Your task to perform on an android device: turn on translation in the chrome app Image 0: 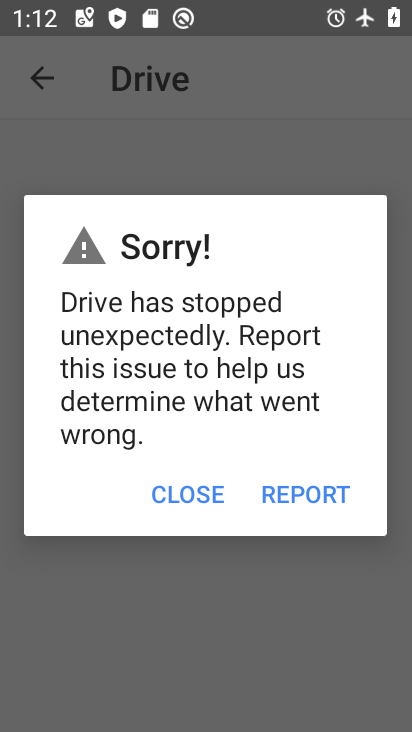
Step 0: drag from (148, 688) to (142, 167)
Your task to perform on an android device: turn on translation in the chrome app Image 1: 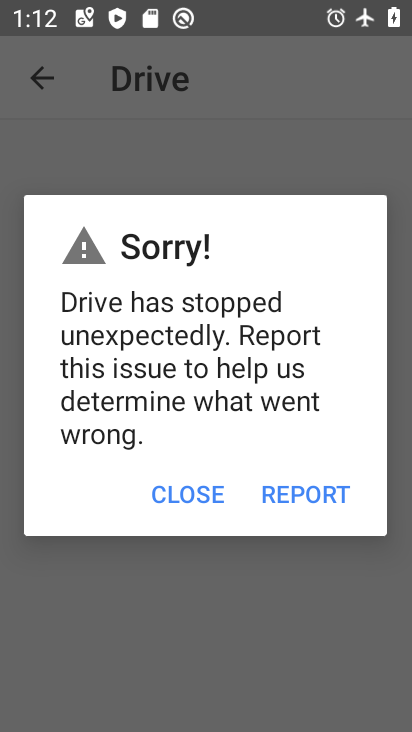
Step 1: press home button
Your task to perform on an android device: turn on translation in the chrome app Image 2: 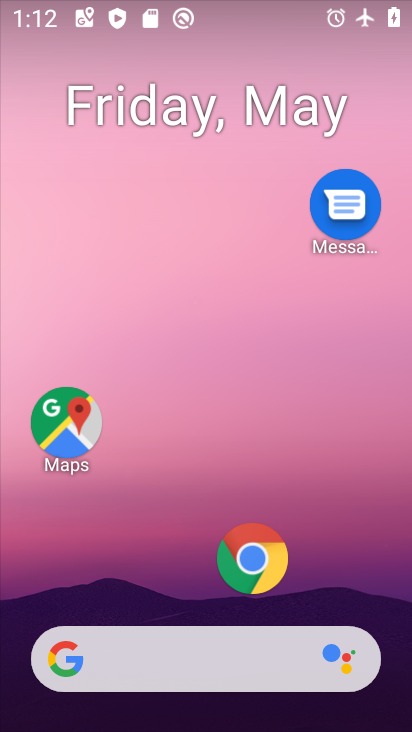
Step 2: click (263, 569)
Your task to perform on an android device: turn on translation in the chrome app Image 3: 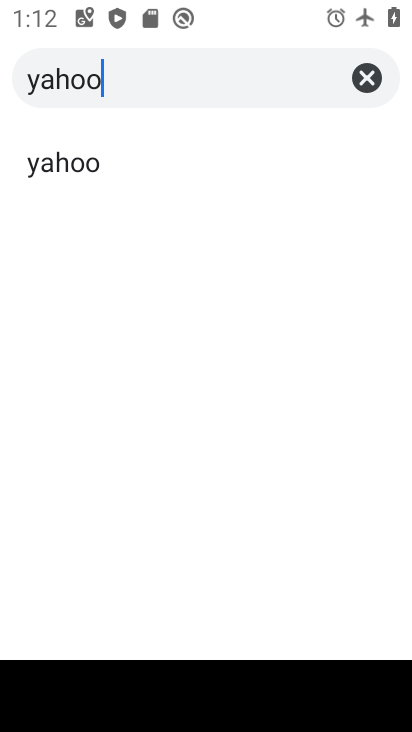
Step 3: click (366, 78)
Your task to perform on an android device: turn on translation in the chrome app Image 4: 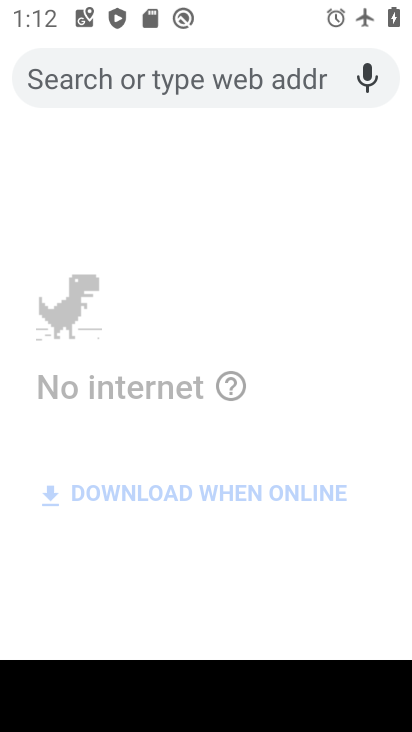
Step 4: press back button
Your task to perform on an android device: turn on translation in the chrome app Image 5: 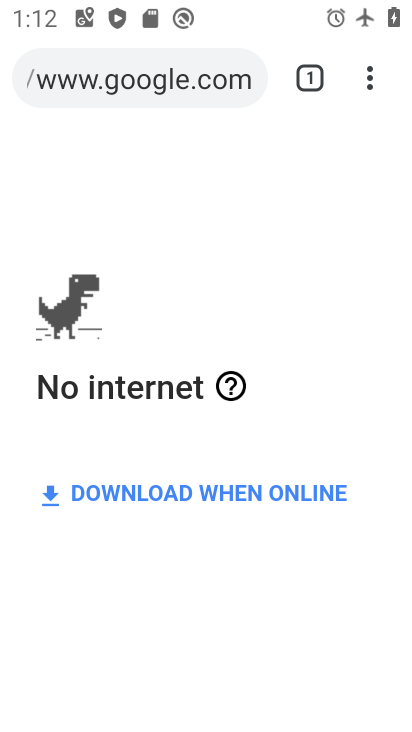
Step 5: click (357, 81)
Your task to perform on an android device: turn on translation in the chrome app Image 6: 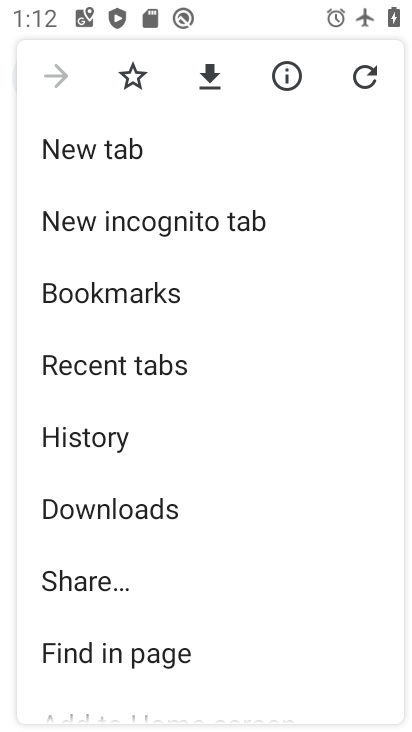
Step 6: task complete